Your task to perform on an android device: Open Google Maps Image 0: 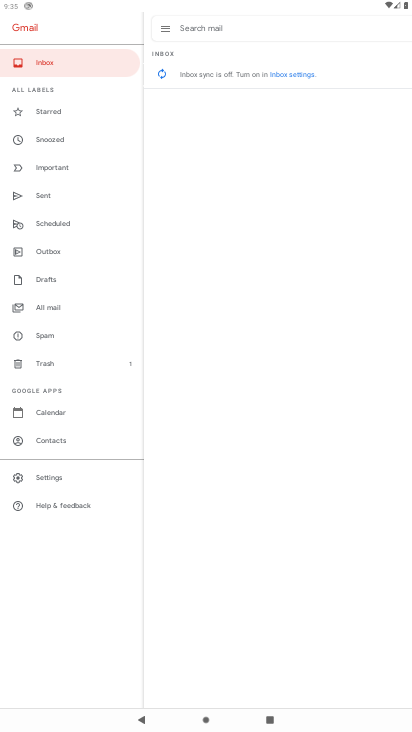
Step 0: press home button
Your task to perform on an android device: Open Google Maps Image 1: 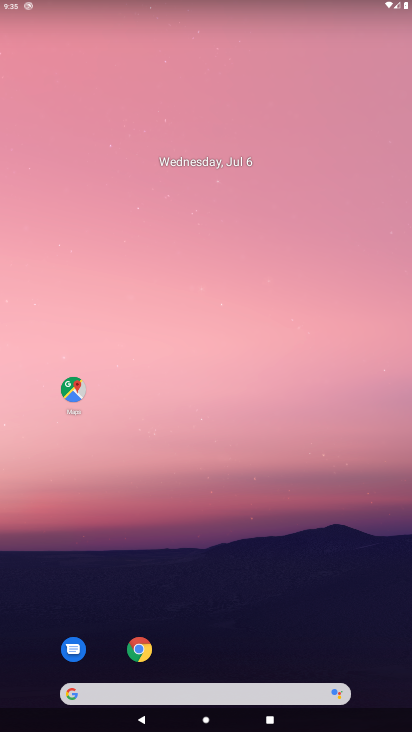
Step 1: click (72, 385)
Your task to perform on an android device: Open Google Maps Image 2: 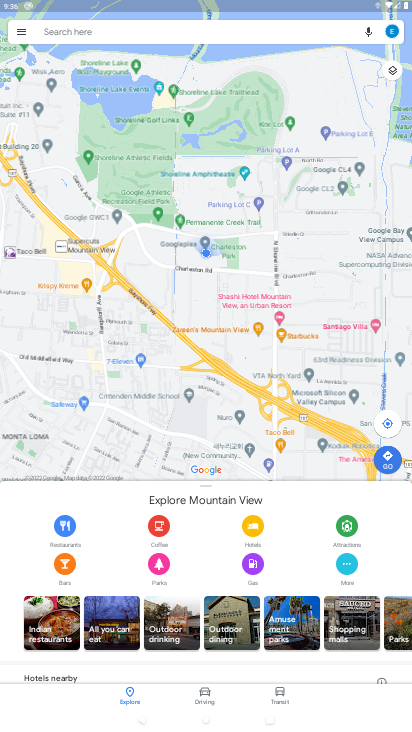
Step 2: task complete